Your task to perform on an android device: Open display settings Image 0: 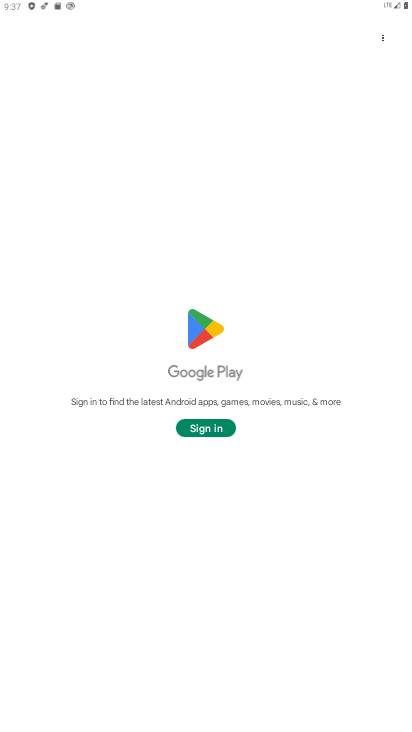
Step 0: press home button
Your task to perform on an android device: Open display settings Image 1: 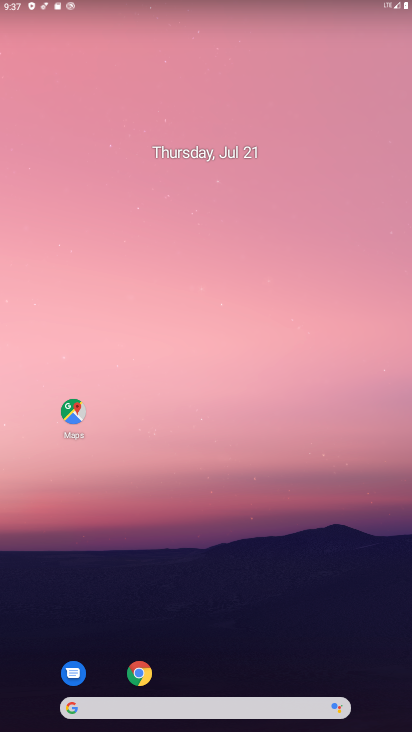
Step 1: drag from (205, 679) to (185, 282)
Your task to perform on an android device: Open display settings Image 2: 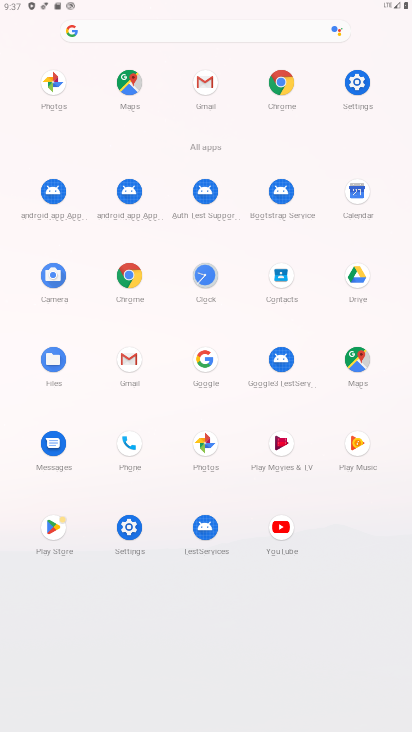
Step 2: click (362, 78)
Your task to perform on an android device: Open display settings Image 3: 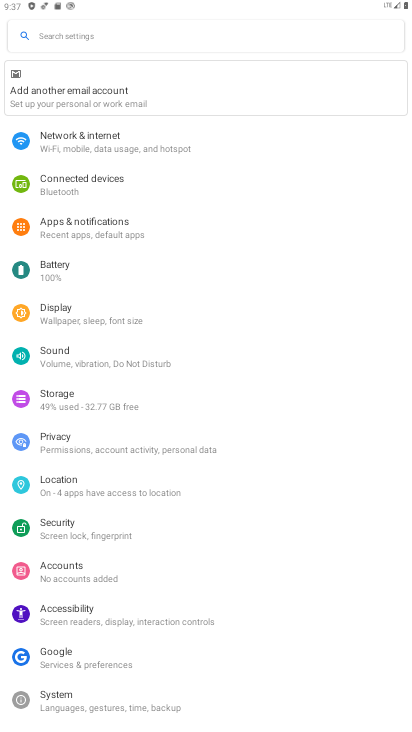
Step 3: click (59, 309)
Your task to perform on an android device: Open display settings Image 4: 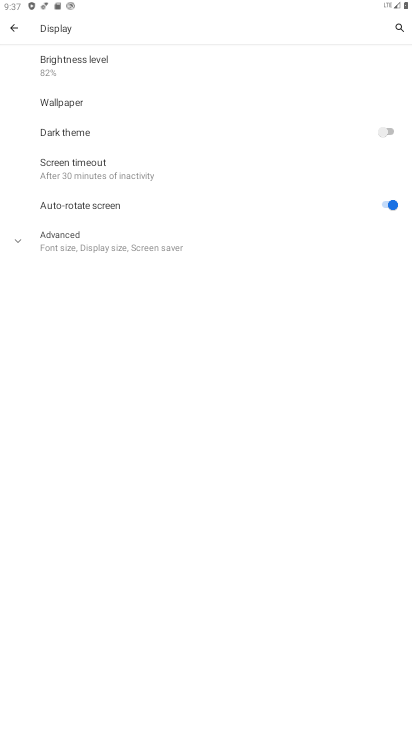
Step 4: task complete